Your task to perform on an android device: Search for logitech g502 on costco, select the first entry, and add it to the cart. Image 0: 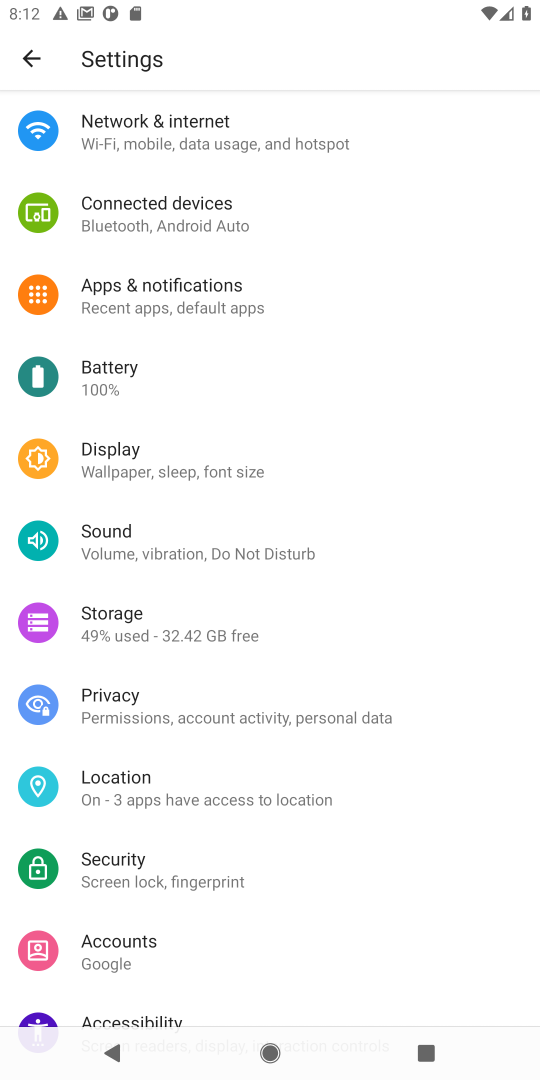
Step 0: press home button
Your task to perform on an android device: Search for logitech g502 on costco, select the first entry, and add it to the cart. Image 1: 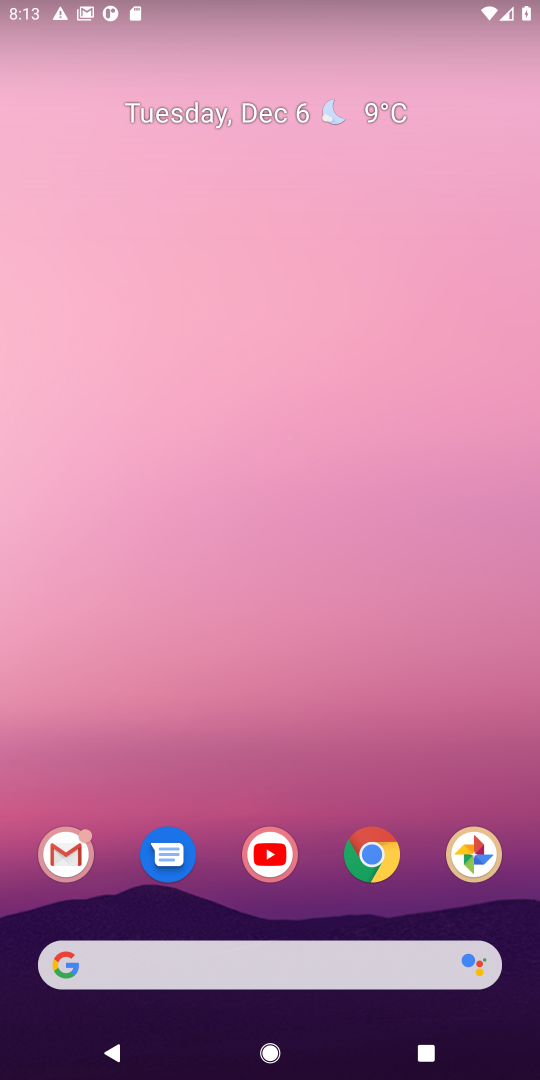
Step 1: click (381, 856)
Your task to perform on an android device: Search for logitech g502 on costco, select the first entry, and add it to the cart. Image 2: 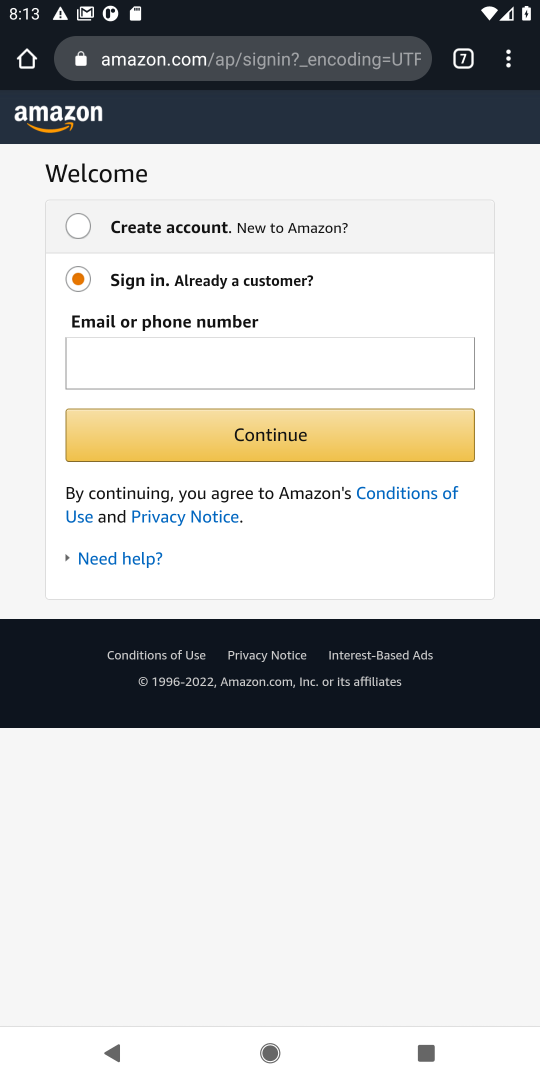
Step 2: click (472, 64)
Your task to perform on an android device: Search for logitech g502 on costco, select the first entry, and add it to the cart. Image 3: 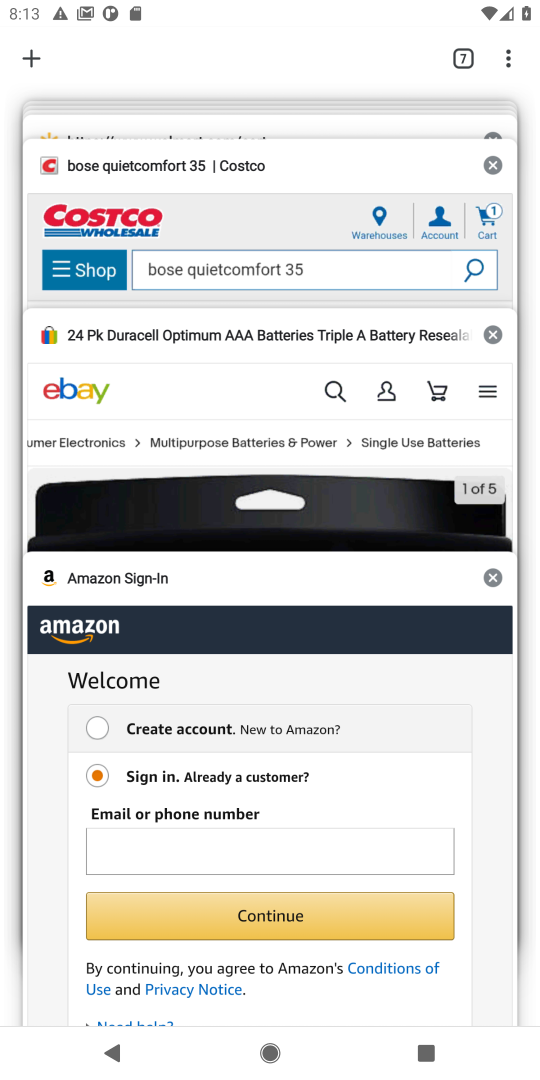
Step 3: click (183, 281)
Your task to perform on an android device: Search for logitech g502 on costco, select the first entry, and add it to the cart. Image 4: 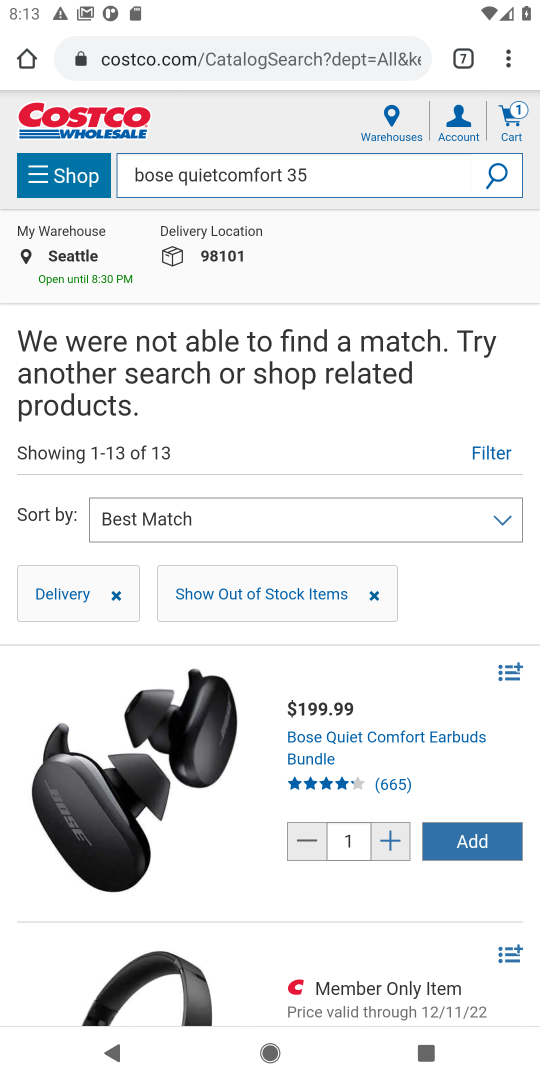
Step 4: click (357, 173)
Your task to perform on an android device: Search for logitech g502 on costco, select the first entry, and add it to the cart. Image 5: 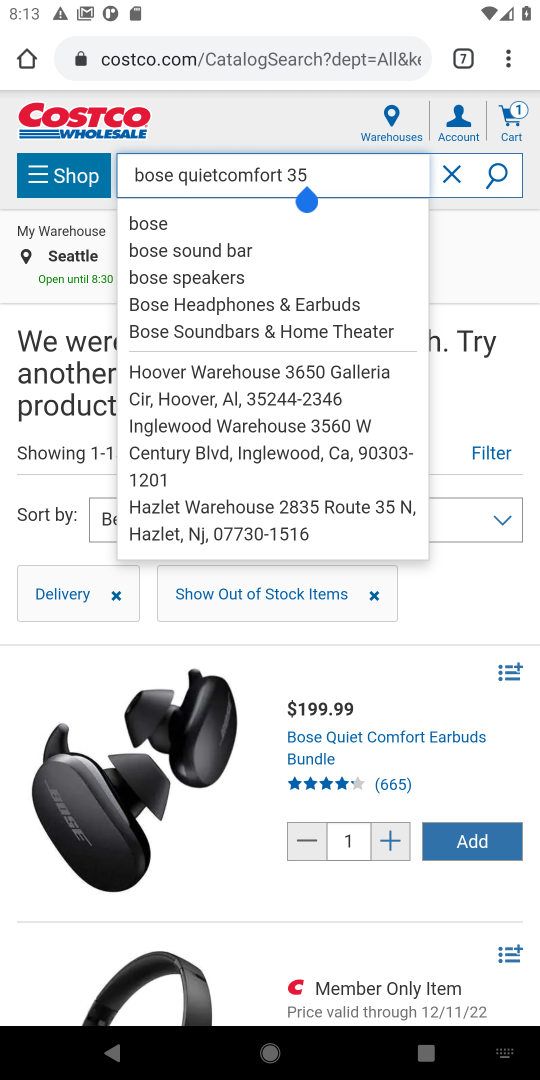
Step 5: click (458, 167)
Your task to perform on an android device: Search for logitech g502 on costco, select the first entry, and add it to the cart. Image 6: 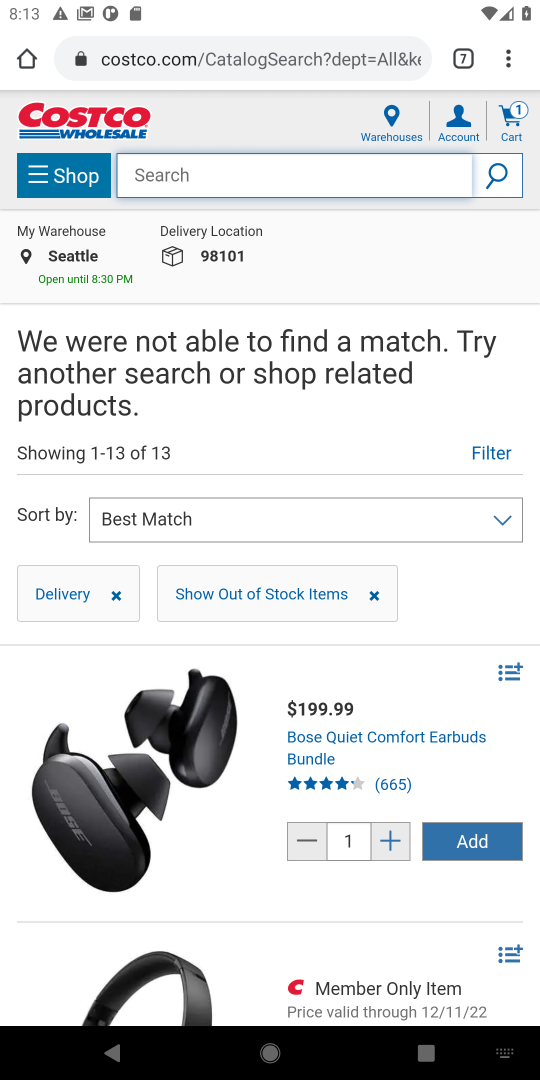
Step 6: press enter
Your task to perform on an android device: Search for logitech g502 on costco, select the first entry, and add it to the cart. Image 7: 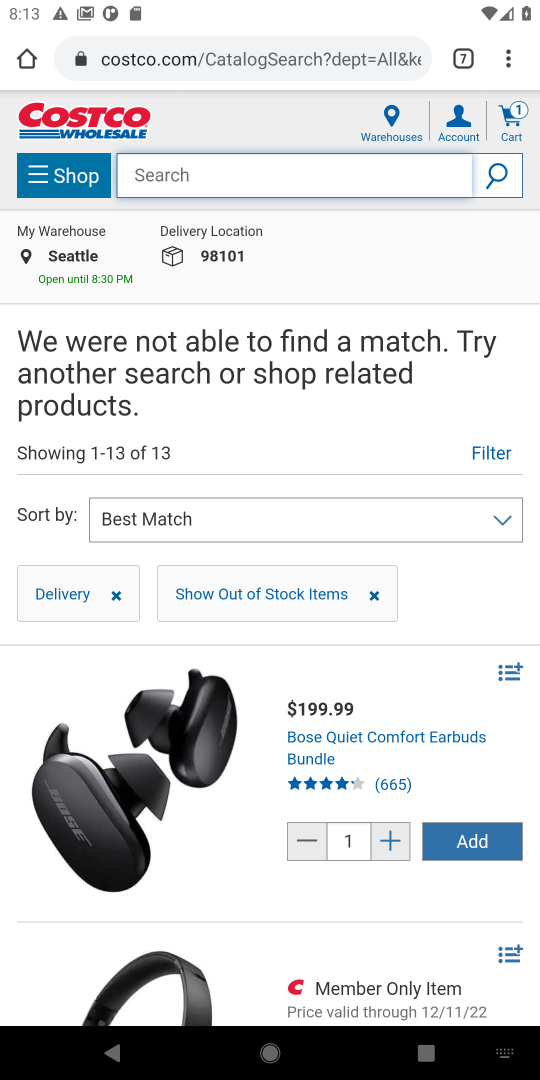
Step 7: type "logitech g502"
Your task to perform on an android device: Search for logitech g502 on costco, select the first entry, and add it to the cart. Image 8: 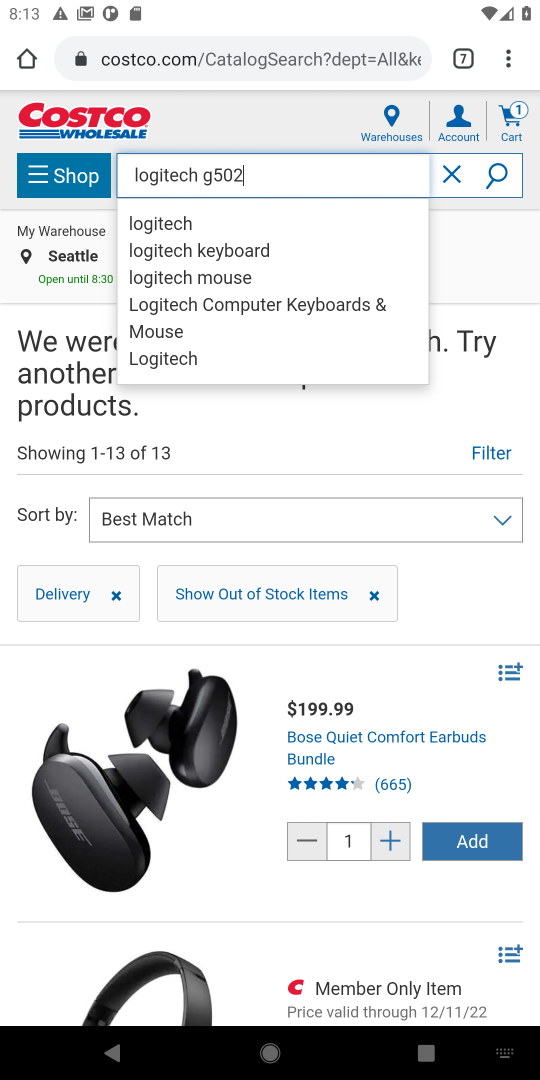
Step 8: click (500, 168)
Your task to perform on an android device: Search for logitech g502 on costco, select the first entry, and add it to the cart. Image 9: 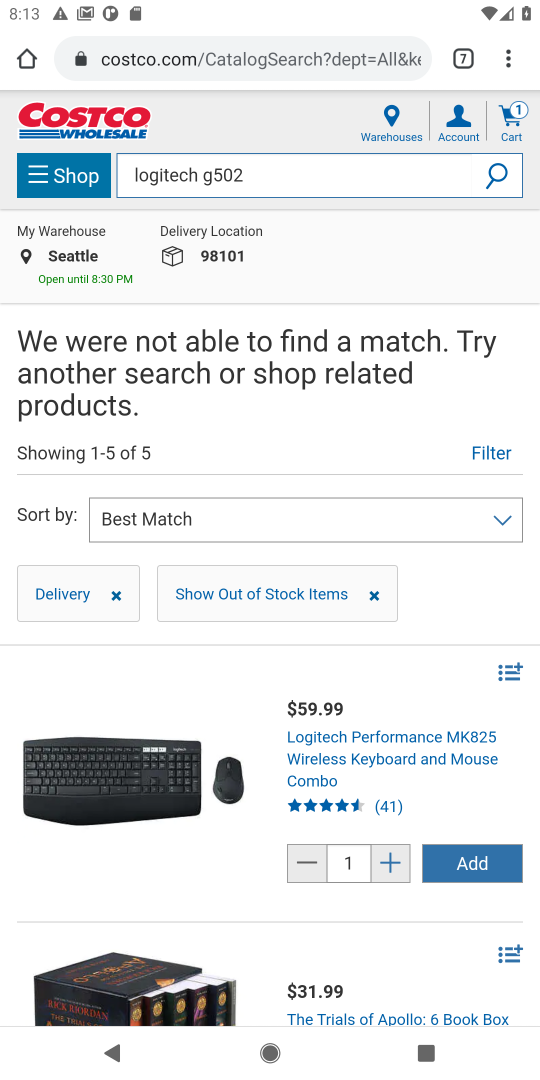
Step 9: task complete